Your task to perform on an android device: Open CNN.com Image 0: 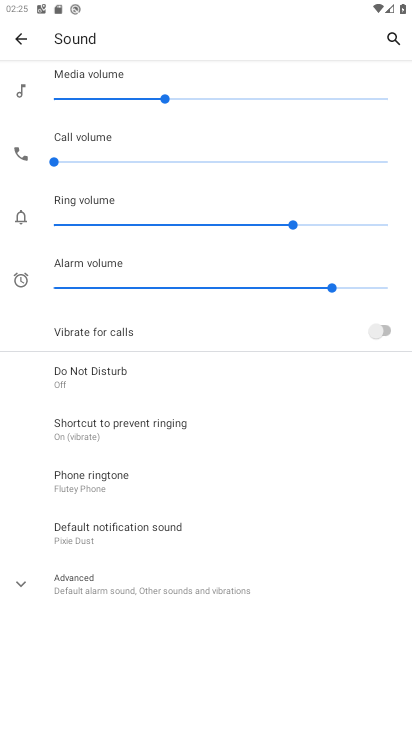
Step 0: press home button
Your task to perform on an android device: Open CNN.com Image 1: 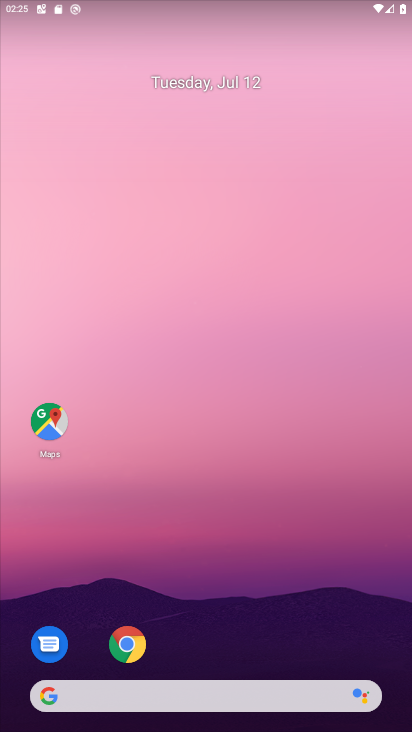
Step 1: click (140, 640)
Your task to perform on an android device: Open CNN.com Image 2: 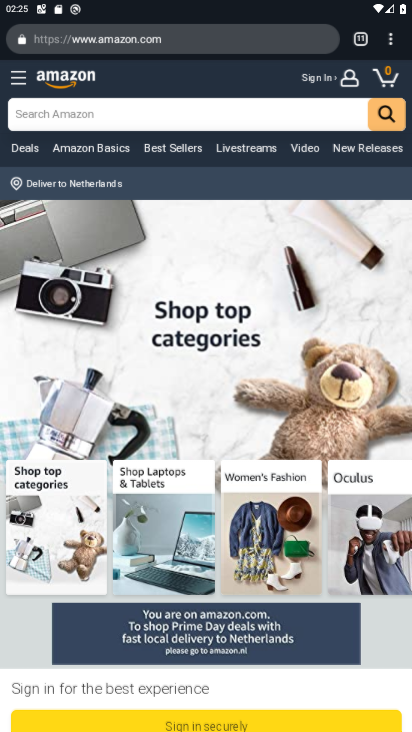
Step 2: click (361, 47)
Your task to perform on an android device: Open CNN.com Image 3: 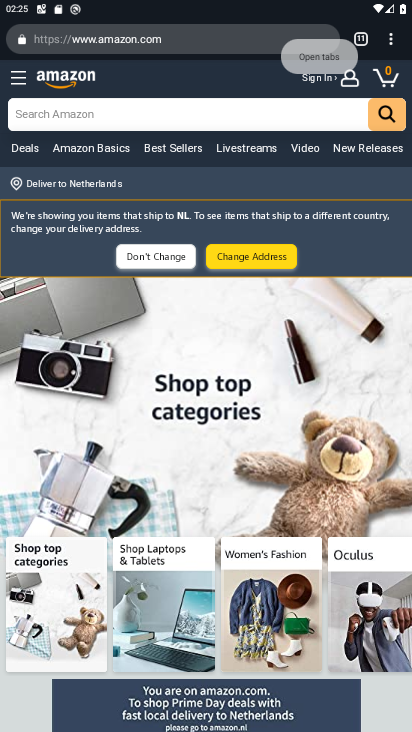
Step 3: click (369, 41)
Your task to perform on an android device: Open CNN.com Image 4: 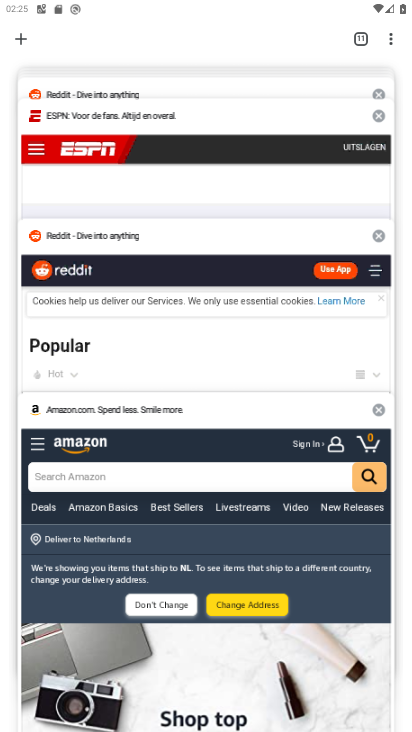
Step 4: click (26, 45)
Your task to perform on an android device: Open CNN.com Image 5: 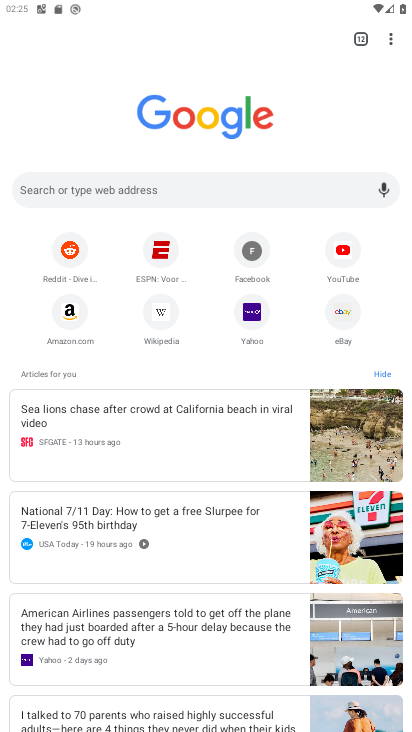
Step 5: click (216, 195)
Your task to perform on an android device: Open CNN.com Image 6: 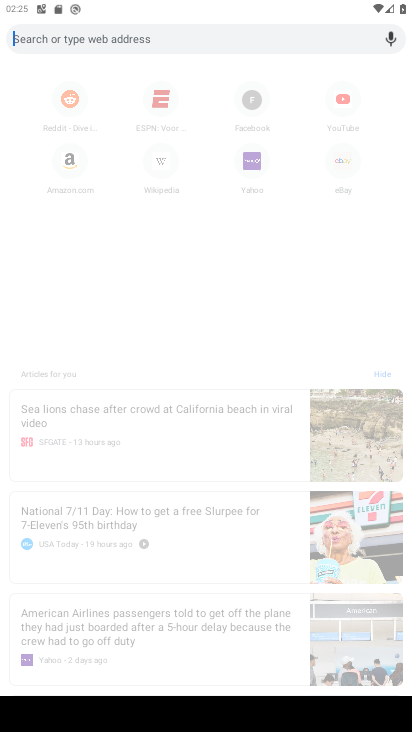
Step 6: type "cnn"
Your task to perform on an android device: Open CNN.com Image 7: 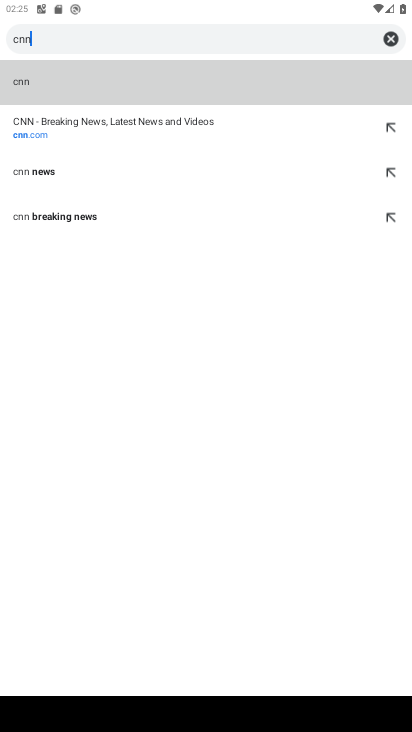
Step 7: click (10, 116)
Your task to perform on an android device: Open CNN.com Image 8: 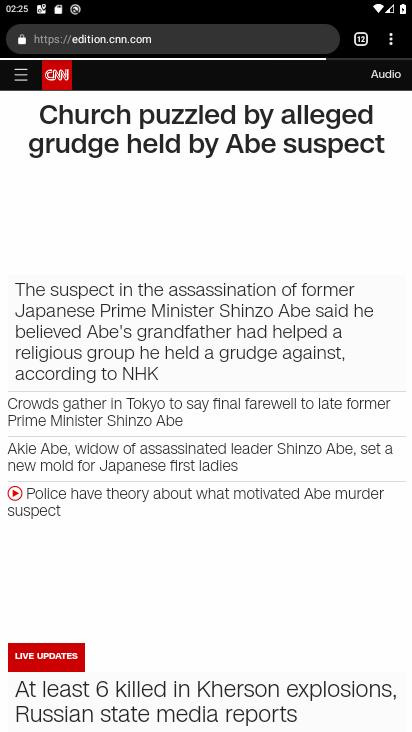
Step 8: task complete